Your task to perform on an android device: change the clock display to digital Image 0: 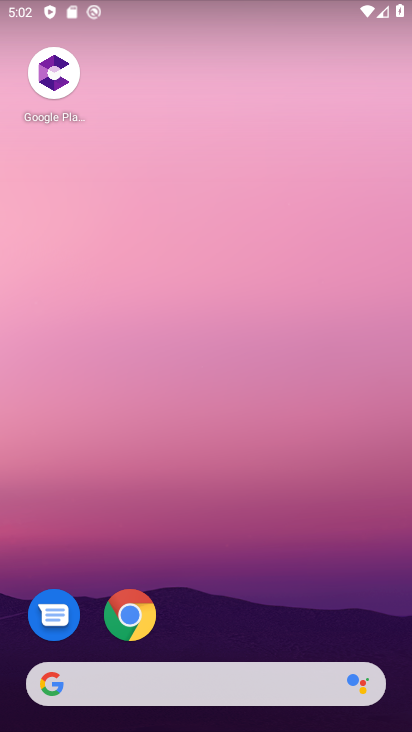
Step 0: drag from (221, 728) to (224, 134)
Your task to perform on an android device: change the clock display to digital Image 1: 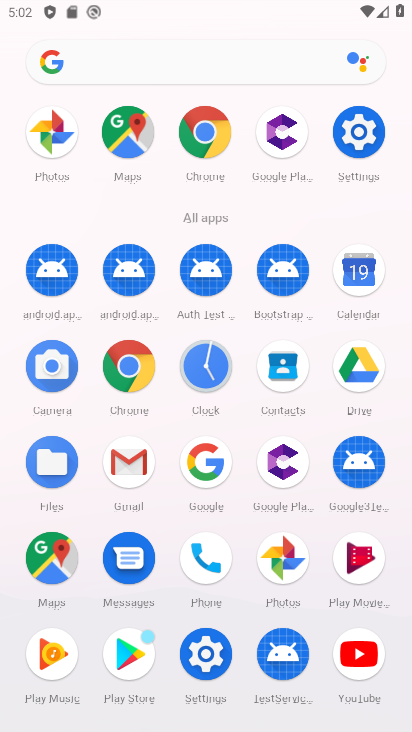
Step 1: click (205, 364)
Your task to perform on an android device: change the clock display to digital Image 2: 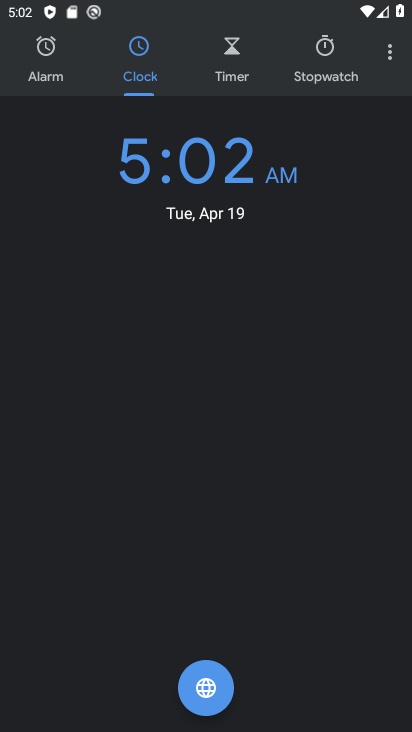
Step 2: click (389, 52)
Your task to perform on an android device: change the clock display to digital Image 3: 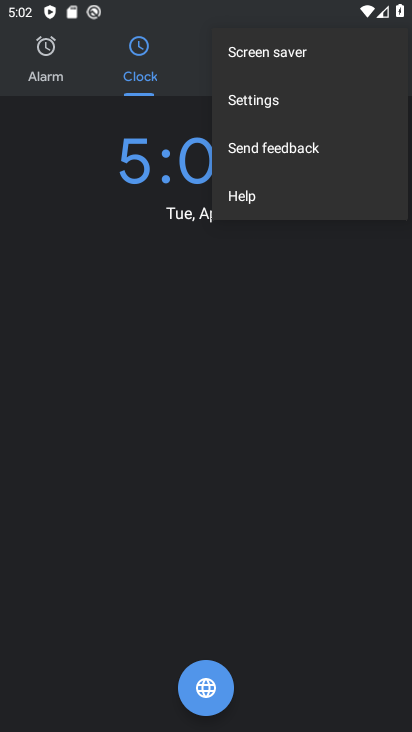
Step 3: click (254, 105)
Your task to perform on an android device: change the clock display to digital Image 4: 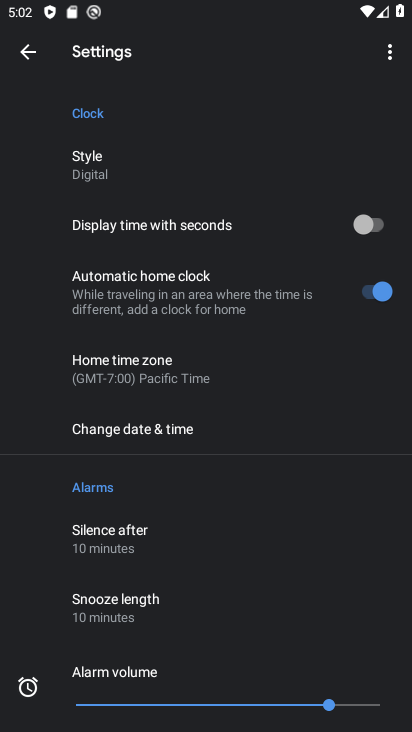
Step 4: click (381, 225)
Your task to perform on an android device: change the clock display to digital Image 5: 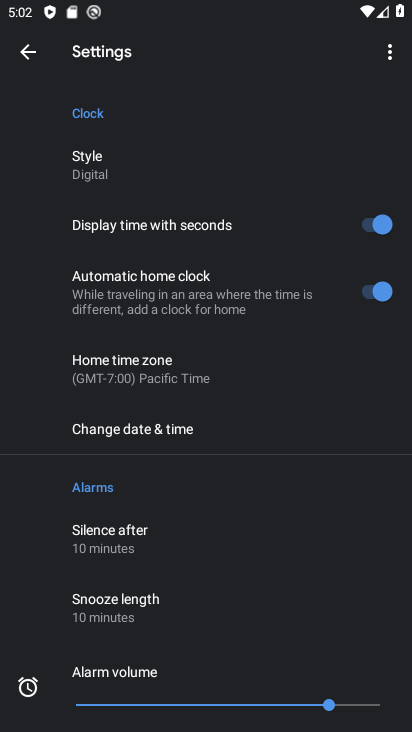
Step 5: task complete